Your task to perform on an android device: check android version Image 0: 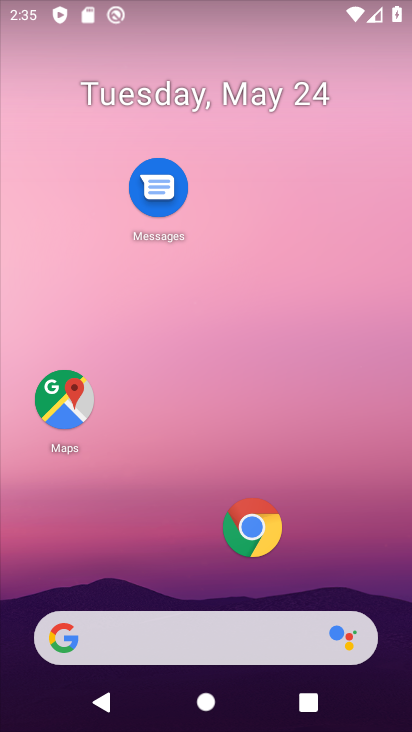
Step 0: drag from (195, 586) to (267, 280)
Your task to perform on an android device: check android version Image 1: 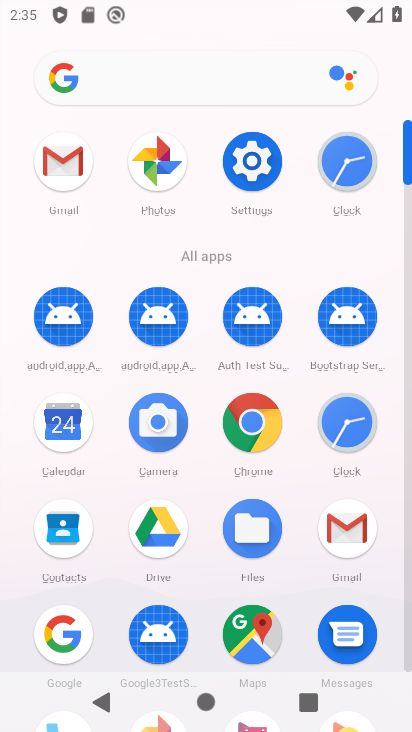
Step 1: click (254, 152)
Your task to perform on an android device: check android version Image 2: 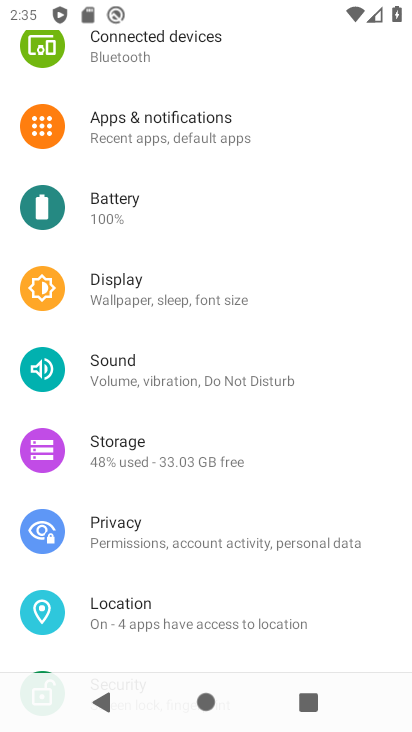
Step 2: drag from (154, 631) to (296, 32)
Your task to perform on an android device: check android version Image 3: 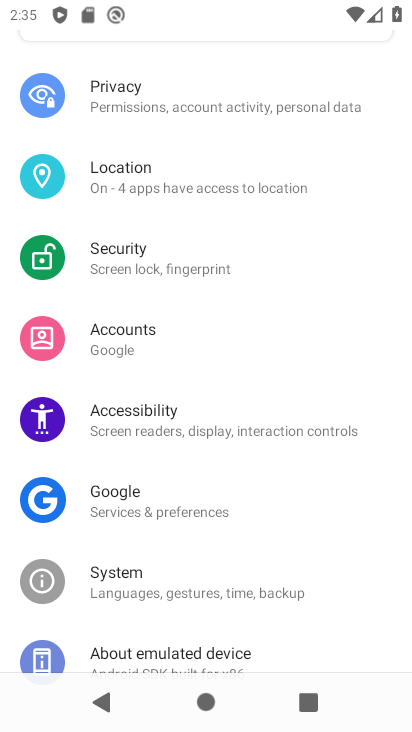
Step 3: click (148, 633)
Your task to perform on an android device: check android version Image 4: 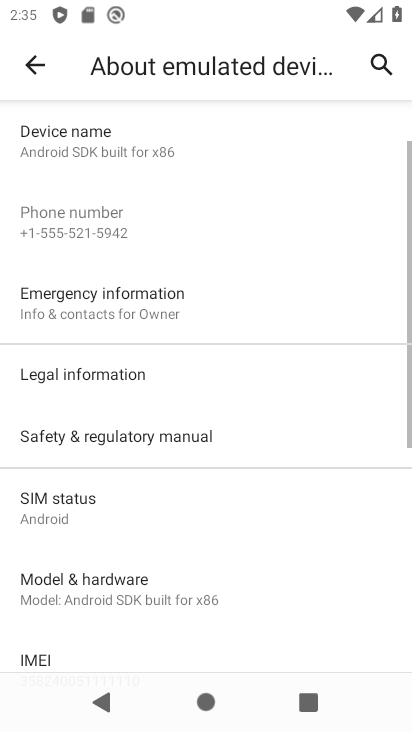
Step 4: drag from (99, 533) to (160, 240)
Your task to perform on an android device: check android version Image 5: 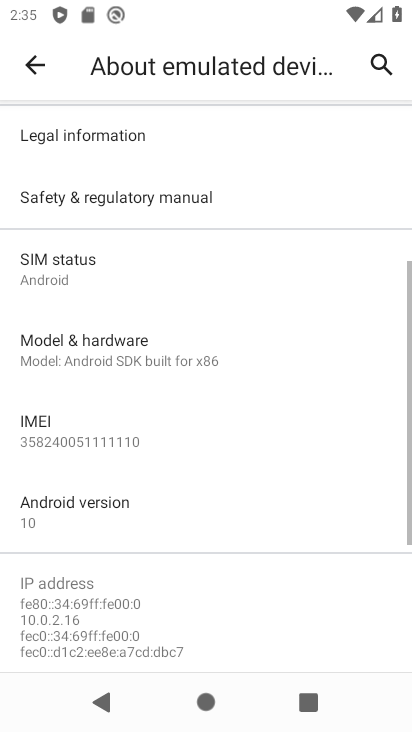
Step 5: click (73, 494)
Your task to perform on an android device: check android version Image 6: 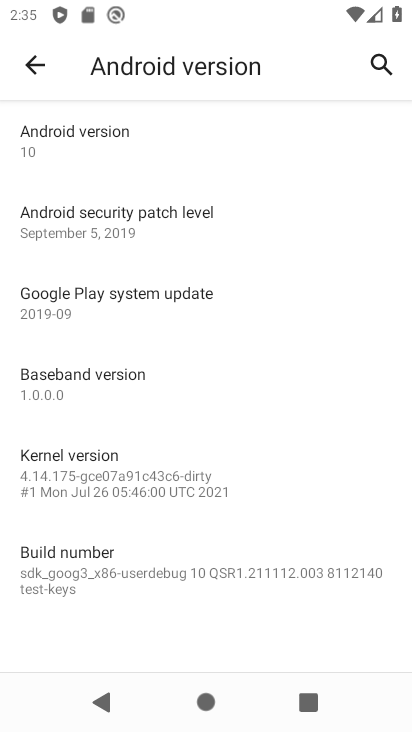
Step 6: task complete